Your task to perform on an android device: Open maps Image 0: 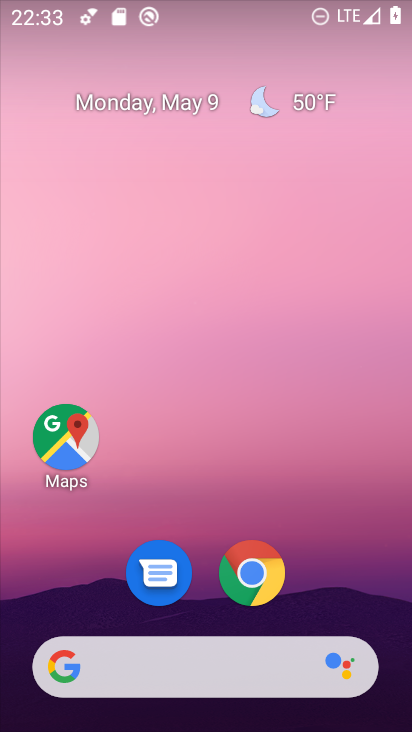
Step 0: drag from (350, 587) to (260, 135)
Your task to perform on an android device: Open maps Image 1: 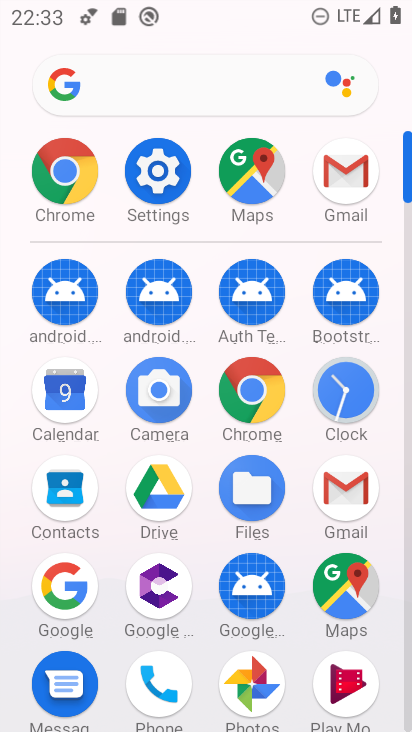
Step 1: click (254, 186)
Your task to perform on an android device: Open maps Image 2: 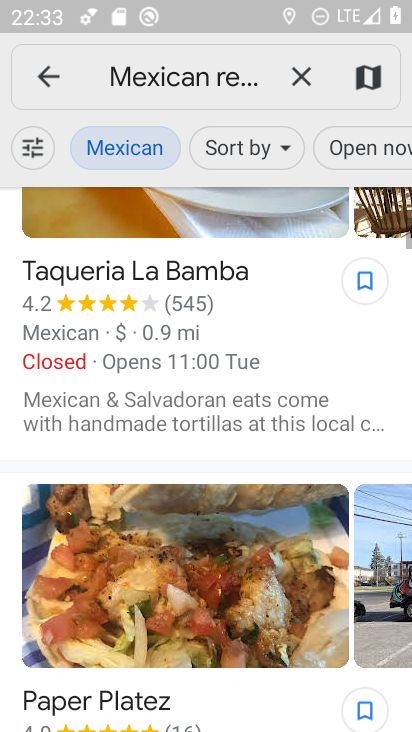
Step 2: task complete